Your task to perform on an android device: Go to calendar. Show me events next week Image 0: 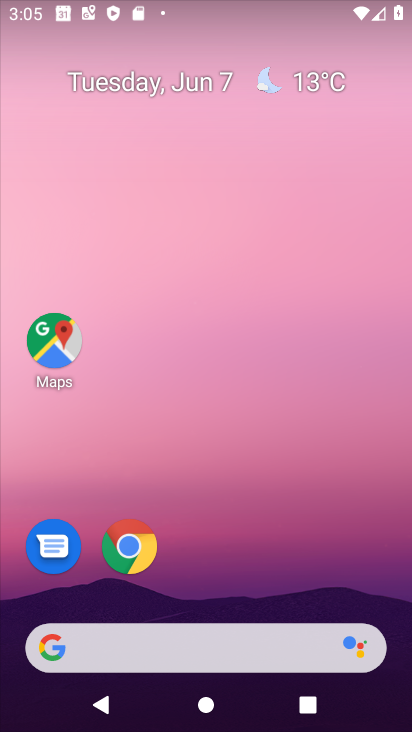
Step 0: drag from (212, 435) to (411, 226)
Your task to perform on an android device: Go to calendar. Show me events next week Image 1: 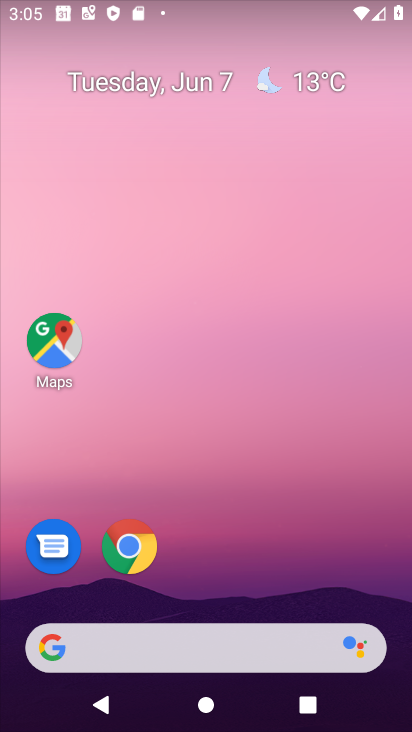
Step 1: drag from (0, 667) to (331, 75)
Your task to perform on an android device: Go to calendar. Show me events next week Image 2: 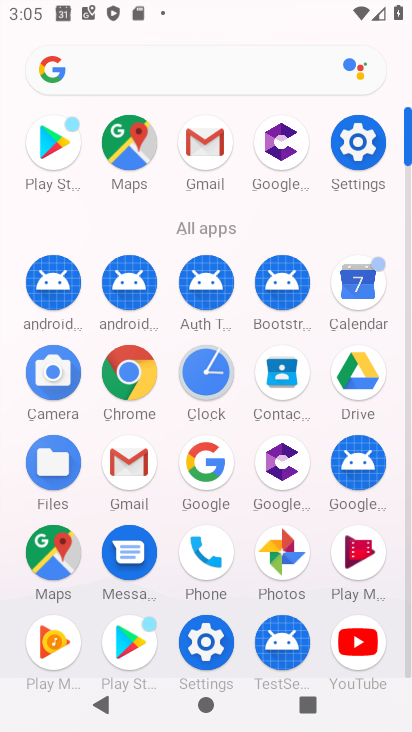
Step 2: click (363, 291)
Your task to perform on an android device: Go to calendar. Show me events next week Image 3: 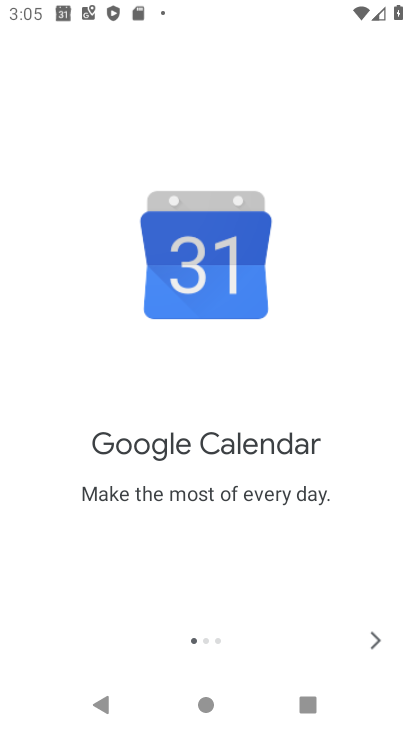
Step 3: click (378, 643)
Your task to perform on an android device: Go to calendar. Show me events next week Image 4: 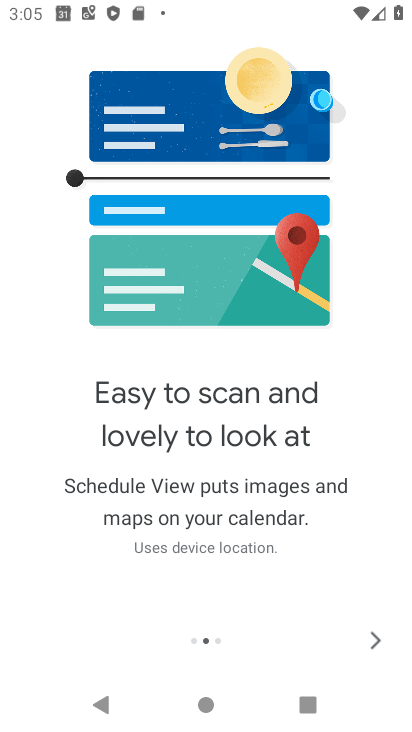
Step 4: click (369, 641)
Your task to perform on an android device: Go to calendar. Show me events next week Image 5: 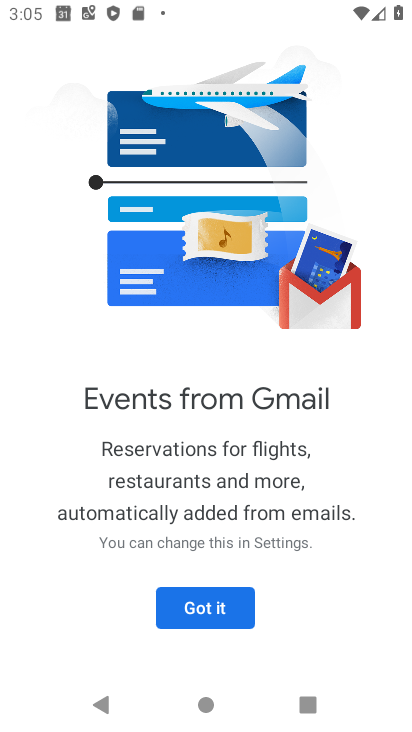
Step 5: click (201, 616)
Your task to perform on an android device: Go to calendar. Show me events next week Image 6: 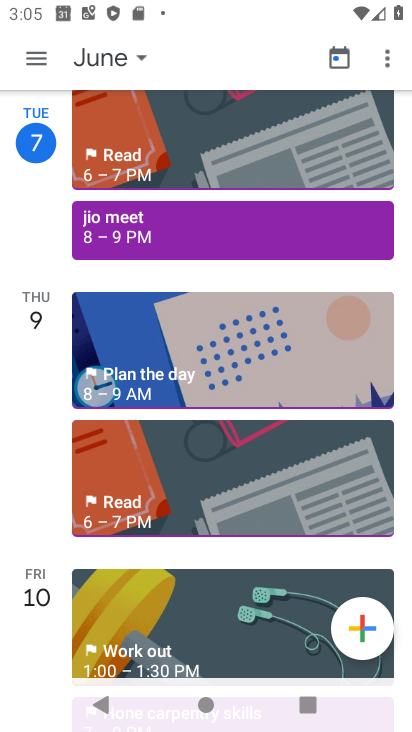
Step 6: click (112, 61)
Your task to perform on an android device: Go to calendar. Show me events next week Image 7: 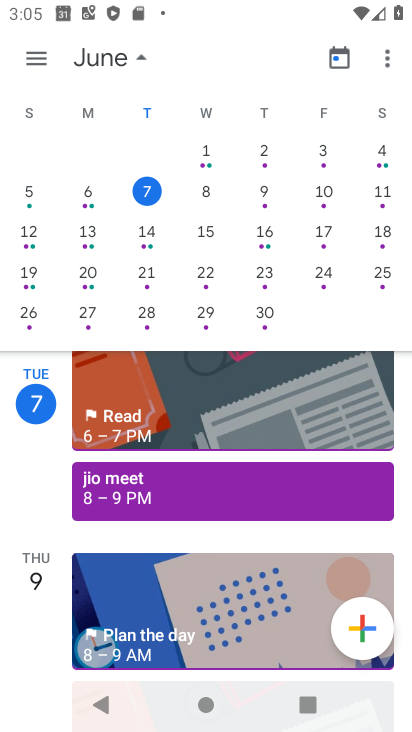
Step 7: click (80, 232)
Your task to perform on an android device: Go to calendar. Show me events next week Image 8: 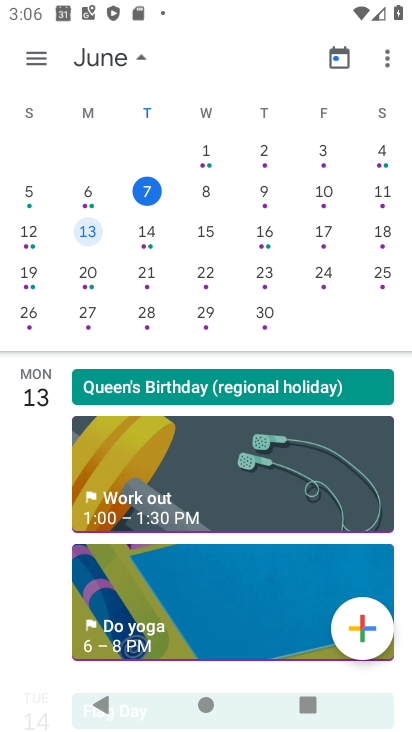
Step 8: task complete